Your task to perform on an android device: set the timer Image 0: 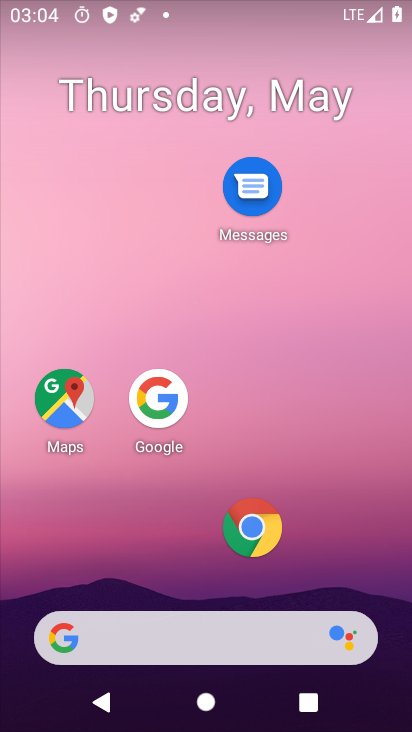
Step 0: drag from (165, 580) to (232, 295)
Your task to perform on an android device: set the timer Image 1: 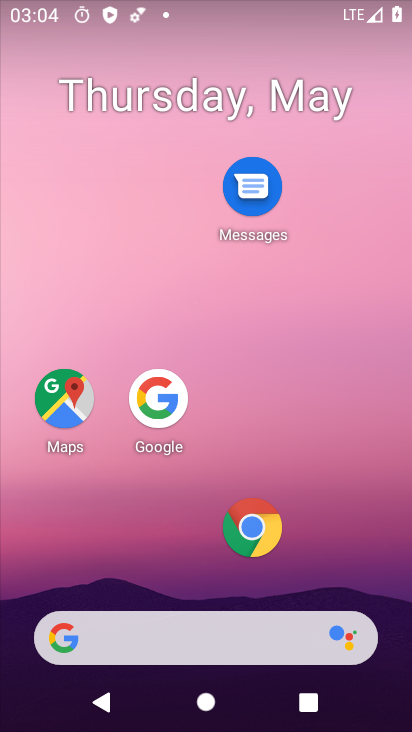
Step 1: drag from (203, 583) to (214, 283)
Your task to perform on an android device: set the timer Image 2: 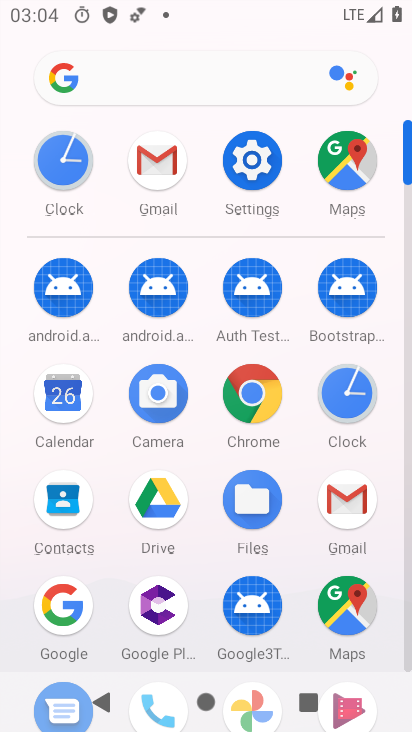
Step 2: click (362, 402)
Your task to perform on an android device: set the timer Image 3: 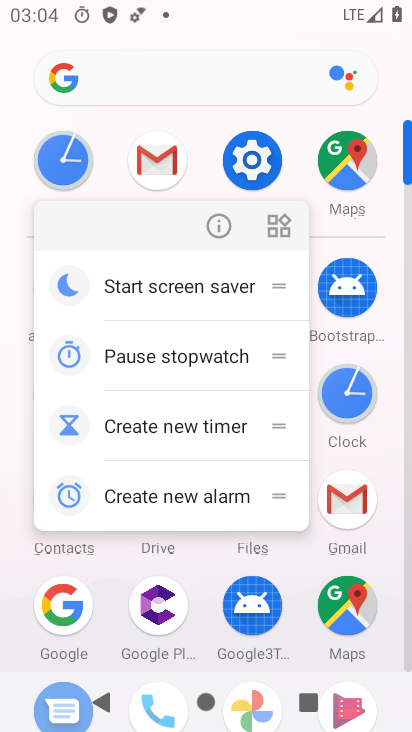
Step 3: click (162, 421)
Your task to perform on an android device: set the timer Image 4: 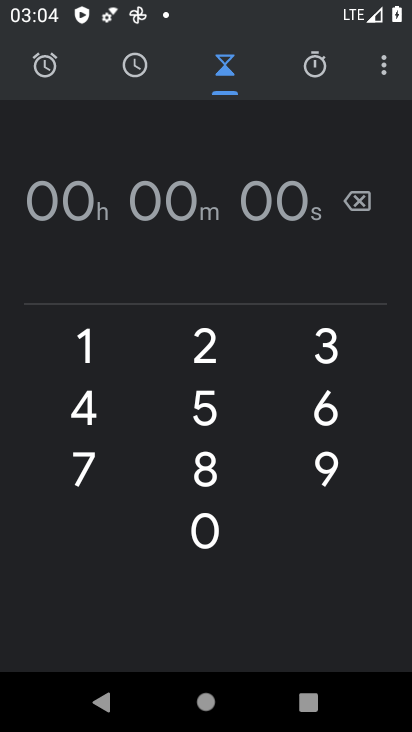
Step 4: click (209, 354)
Your task to perform on an android device: set the timer Image 5: 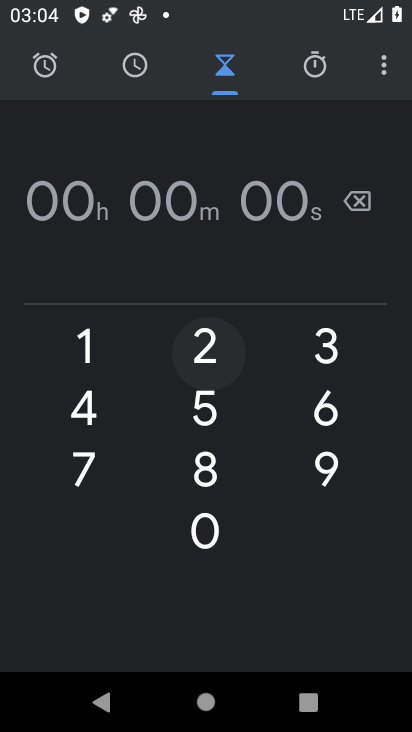
Step 5: click (213, 380)
Your task to perform on an android device: set the timer Image 6: 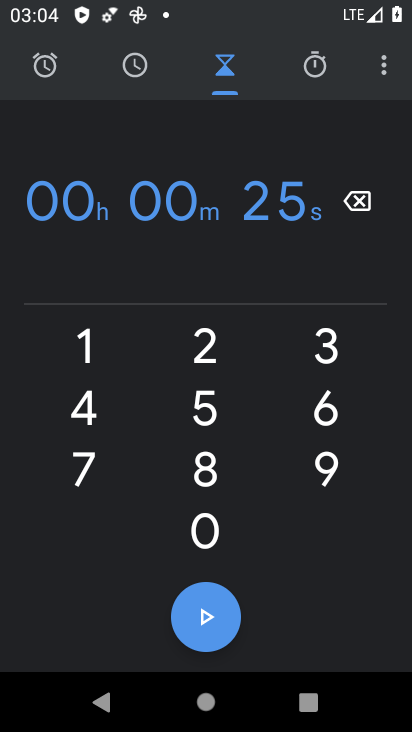
Step 6: click (238, 651)
Your task to perform on an android device: set the timer Image 7: 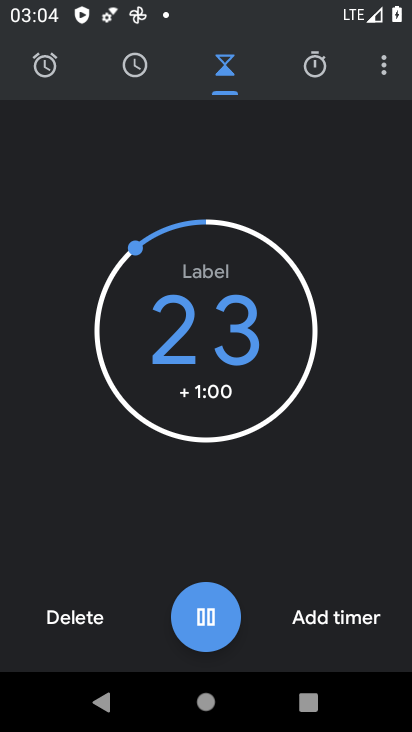
Step 7: task complete